Your task to perform on an android device: Open location settings Image 0: 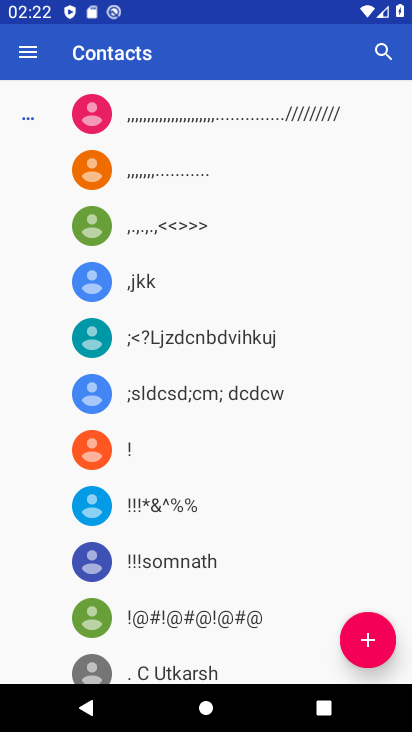
Step 0: press home button
Your task to perform on an android device: Open location settings Image 1: 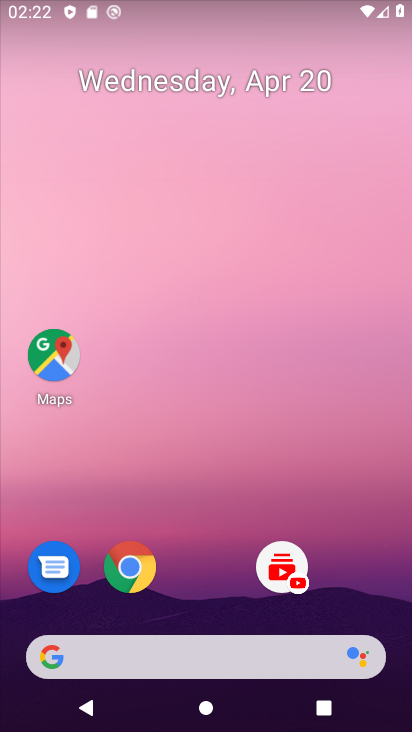
Step 1: drag from (151, 588) to (124, 7)
Your task to perform on an android device: Open location settings Image 2: 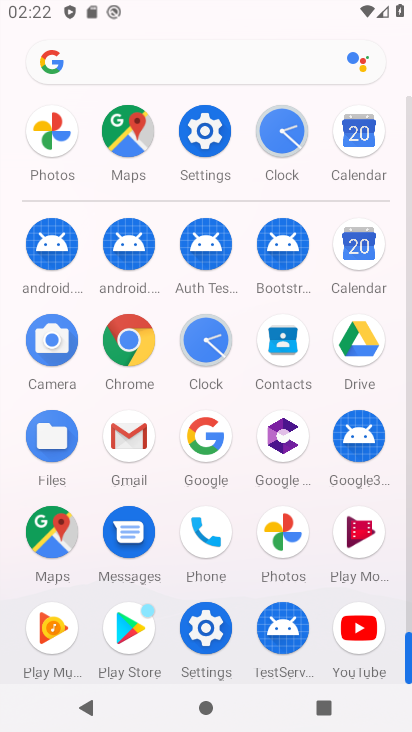
Step 2: click (206, 146)
Your task to perform on an android device: Open location settings Image 3: 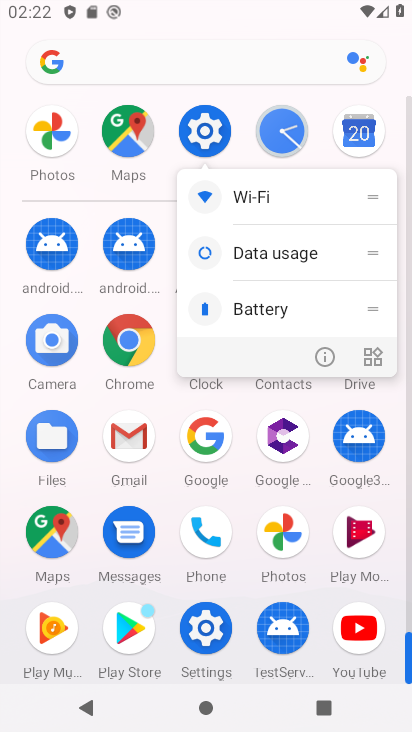
Step 3: click (323, 357)
Your task to perform on an android device: Open location settings Image 4: 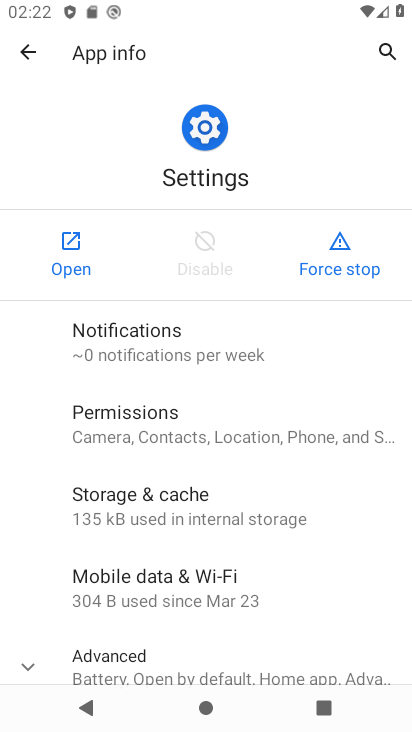
Step 4: click (61, 241)
Your task to perform on an android device: Open location settings Image 5: 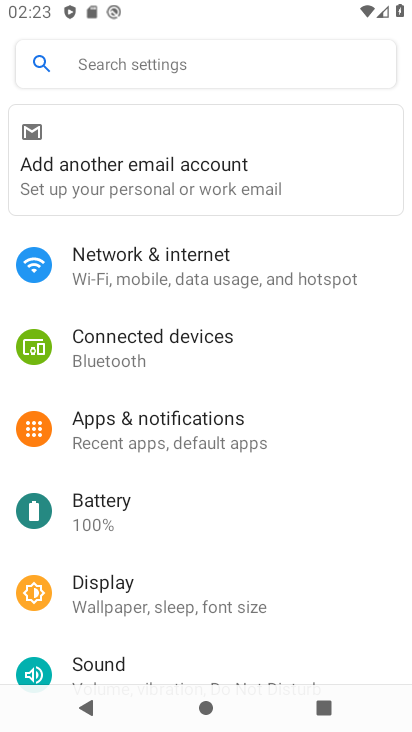
Step 5: drag from (171, 538) to (180, 192)
Your task to perform on an android device: Open location settings Image 6: 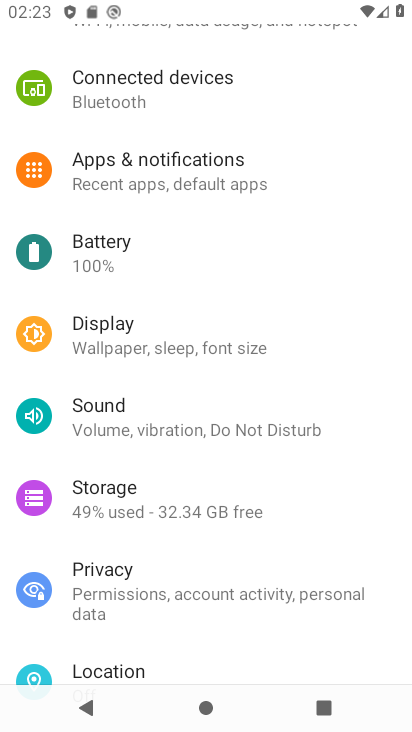
Step 6: drag from (186, 582) to (210, 195)
Your task to perform on an android device: Open location settings Image 7: 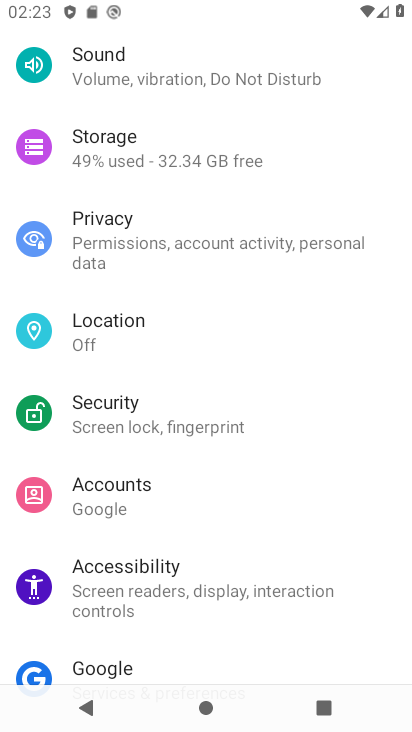
Step 7: click (144, 335)
Your task to perform on an android device: Open location settings Image 8: 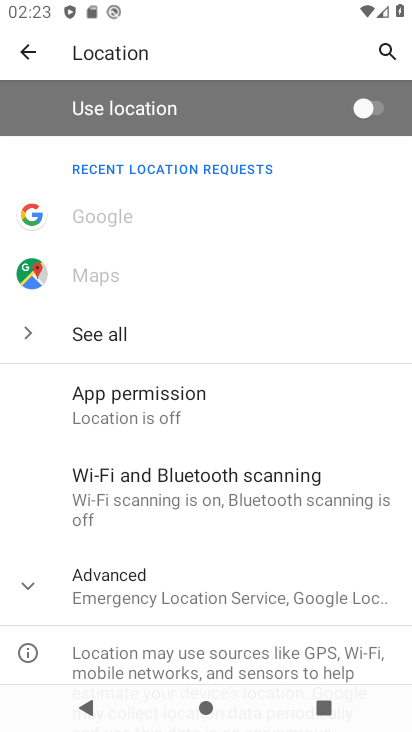
Step 8: task complete